Your task to perform on an android device: turn off priority inbox in the gmail app Image 0: 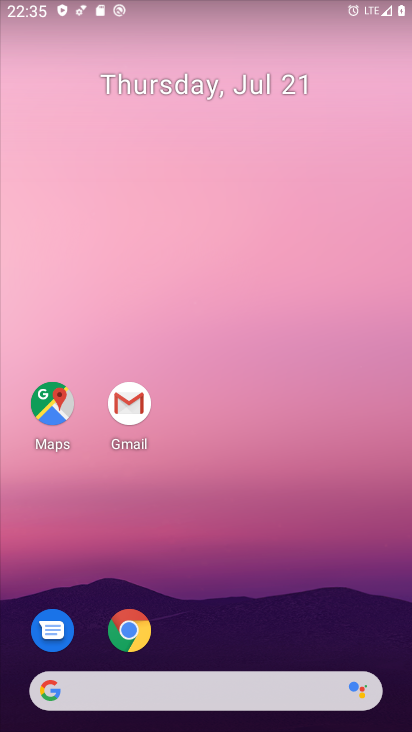
Step 0: drag from (112, 656) to (113, 318)
Your task to perform on an android device: turn off priority inbox in the gmail app Image 1: 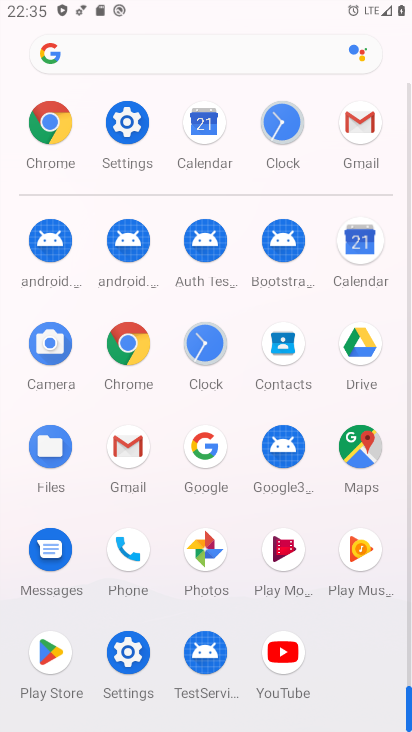
Step 1: click (121, 456)
Your task to perform on an android device: turn off priority inbox in the gmail app Image 2: 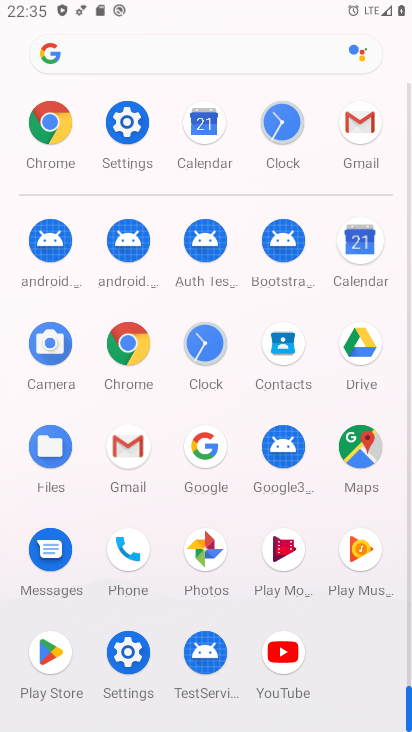
Step 2: click (121, 450)
Your task to perform on an android device: turn off priority inbox in the gmail app Image 3: 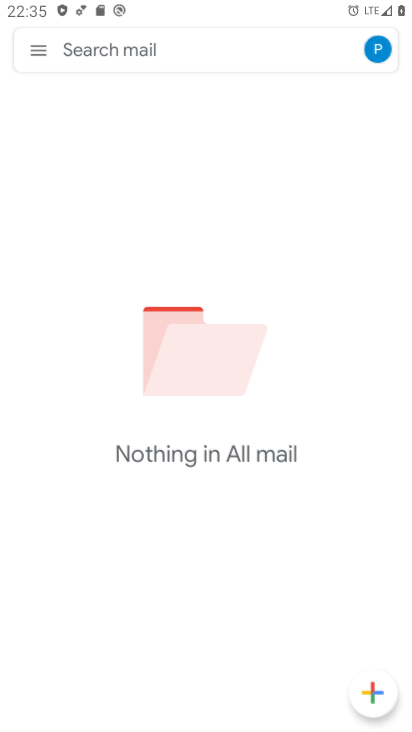
Step 3: click (125, 448)
Your task to perform on an android device: turn off priority inbox in the gmail app Image 4: 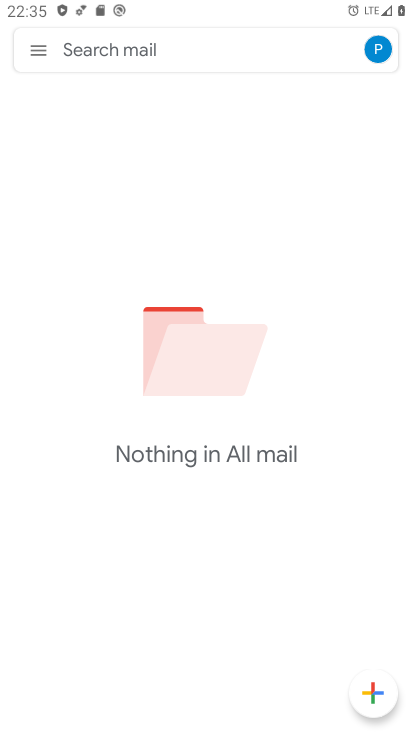
Step 4: click (33, 55)
Your task to perform on an android device: turn off priority inbox in the gmail app Image 5: 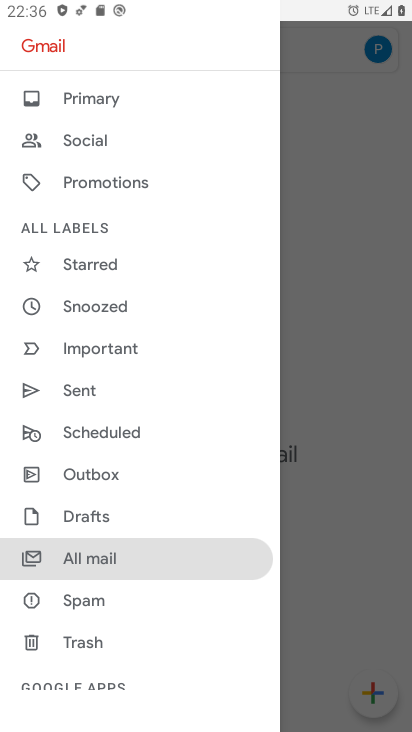
Step 5: press back button
Your task to perform on an android device: turn off priority inbox in the gmail app Image 6: 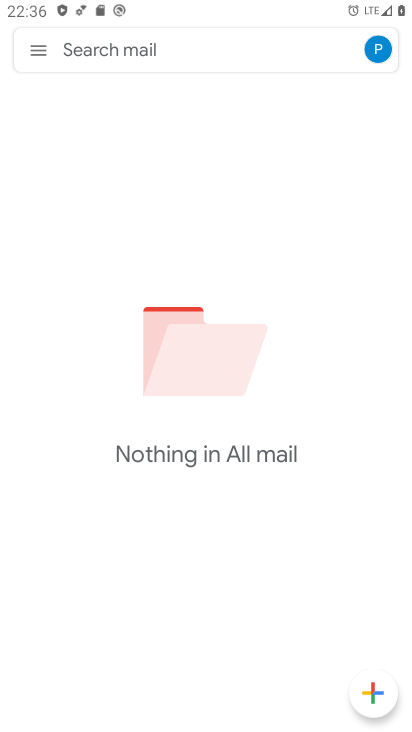
Step 6: press back button
Your task to perform on an android device: turn off priority inbox in the gmail app Image 7: 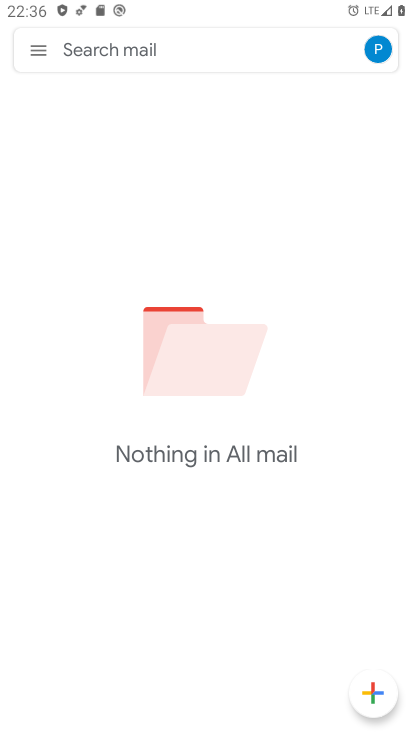
Step 7: press back button
Your task to perform on an android device: turn off priority inbox in the gmail app Image 8: 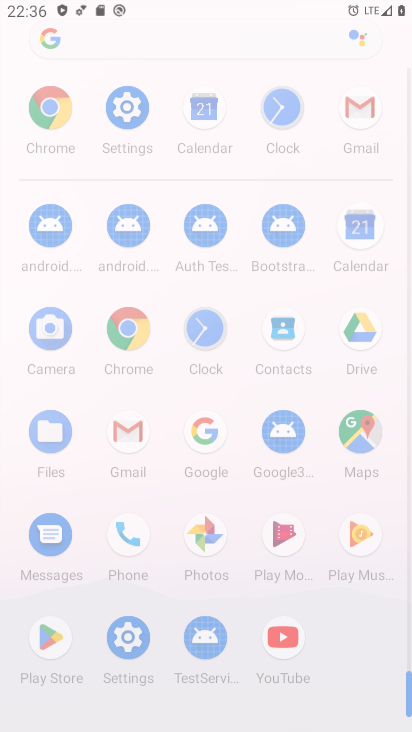
Step 8: drag from (211, 572) to (163, 193)
Your task to perform on an android device: turn off priority inbox in the gmail app Image 9: 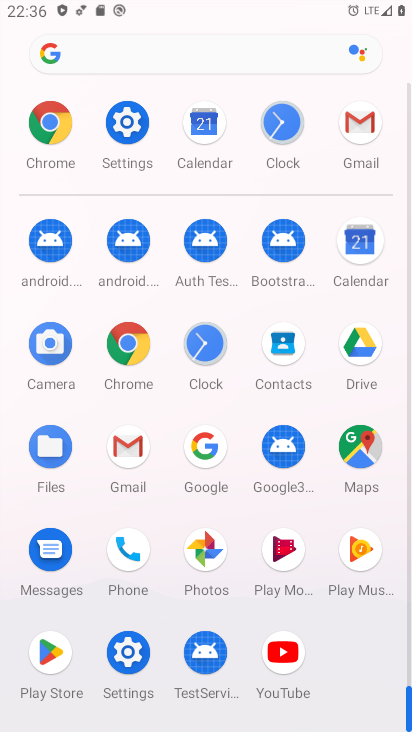
Step 9: click (126, 447)
Your task to perform on an android device: turn off priority inbox in the gmail app Image 10: 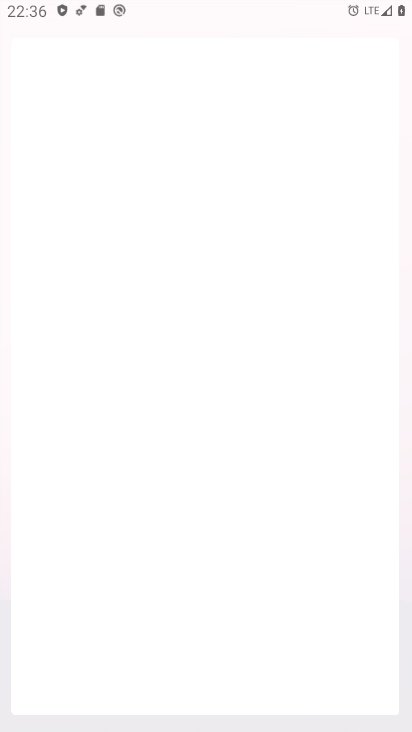
Step 10: click (131, 443)
Your task to perform on an android device: turn off priority inbox in the gmail app Image 11: 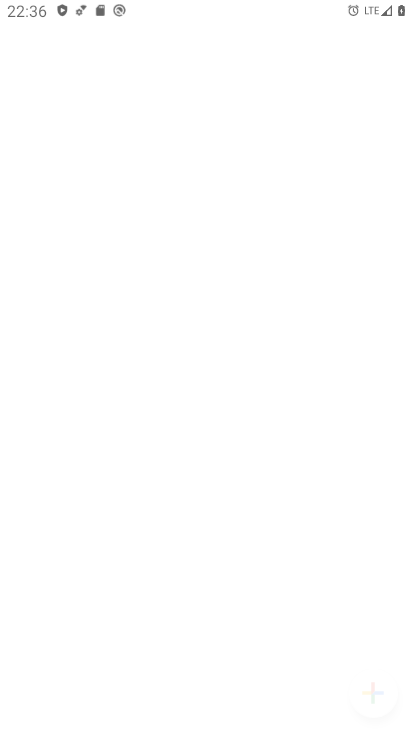
Step 11: click (117, 429)
Your task to perform on an android device: turn off priority inbox in the gmail app Image 12: 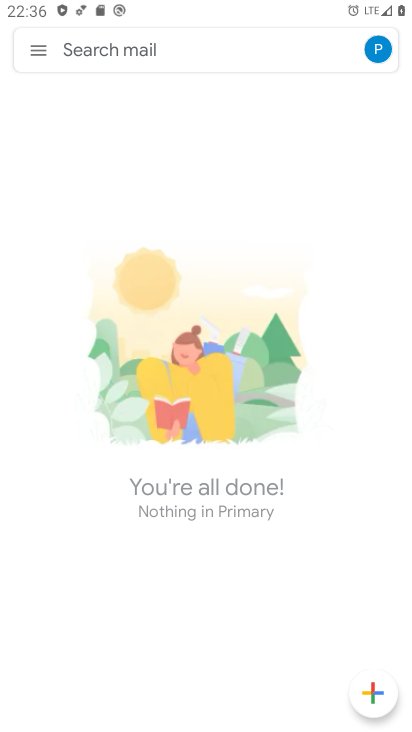
Step 12: click (127, 441)
Your task to perform on an android device: turn off priority inbox in the gmail app Image 13: 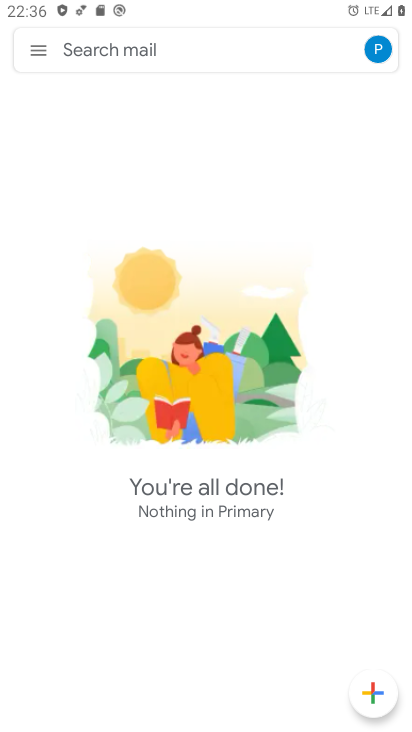
Step 13: click (131, 445)
Your task to perform on an android device: turn off priority inbox in the gmail app Image 14: 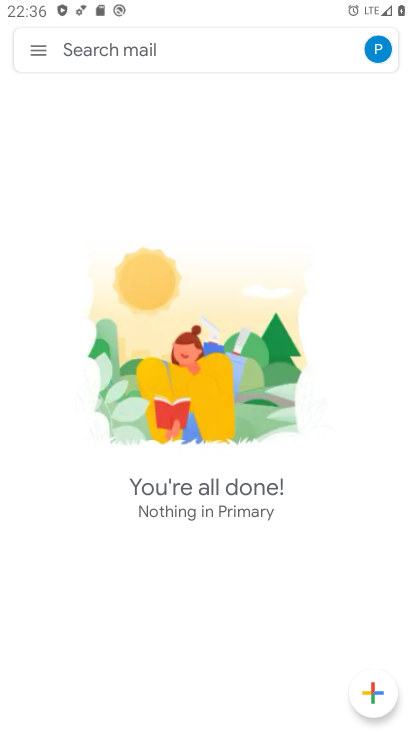
Step 14: click (132, 446)
Your task to perform on an android device: turn off priority inbox in the gmail app Image 15: 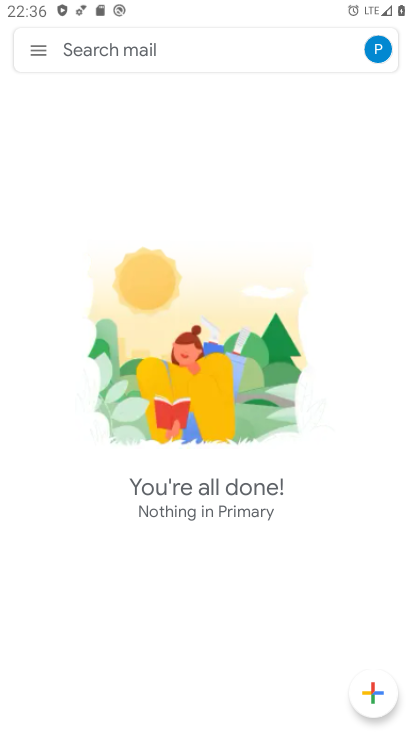
Step 15: click (124, 461)
Your task to perform on an android device: turn off priority inbox in the gmail app Image 16: 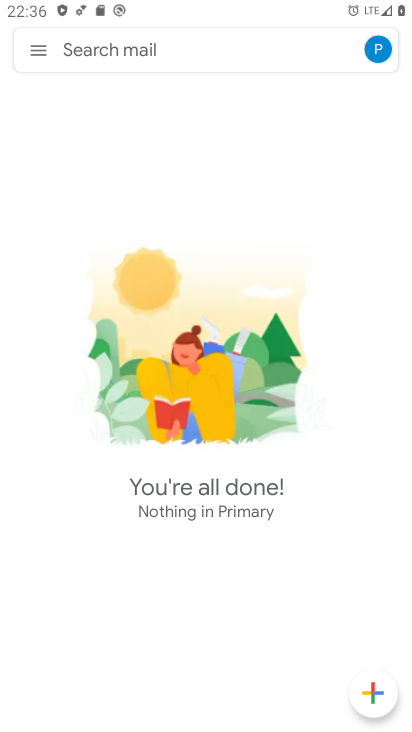
Step 16: click (124, 443)
Your task to perform on an android device: turn off priority inbox in the gmail app Image 17: 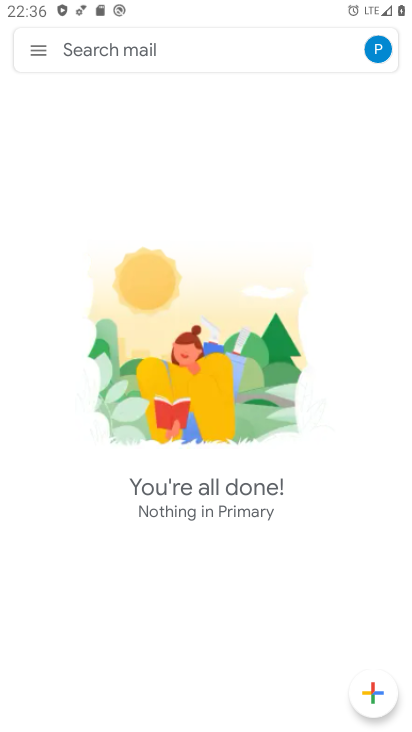
Step 17: click (130, 442)
Your task to perform on an android device: turn off priority inbox in the gmail app Image 18: 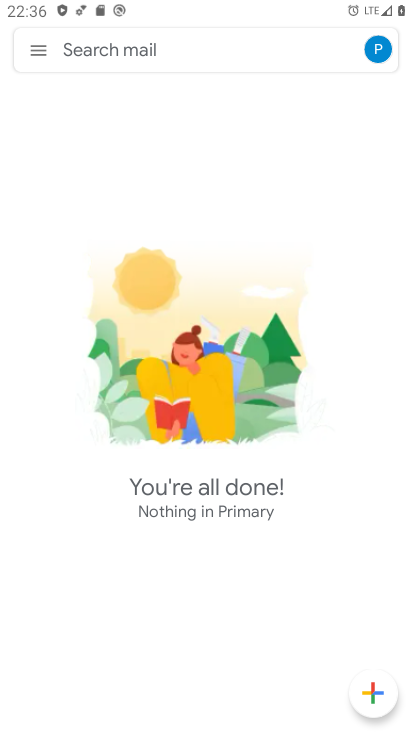
Step 18: click (125, 446)
Your task to perform on an android device: turn off priority inbox in the gmail app Image 19: 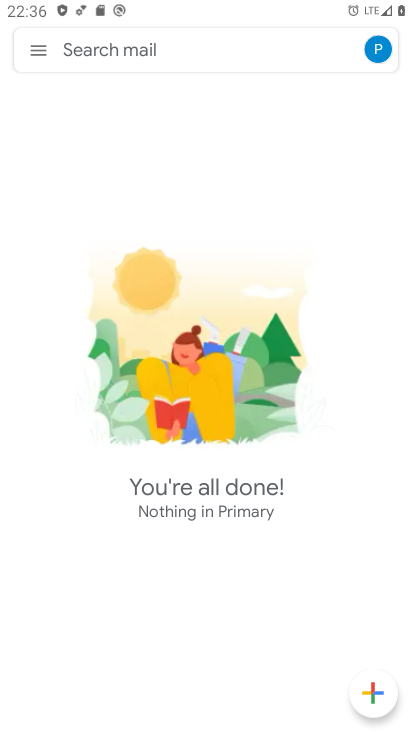
Step 19: click (143, 451)
Your task to perform on an android device: turn off priority inbox in the gmail app Image 20: 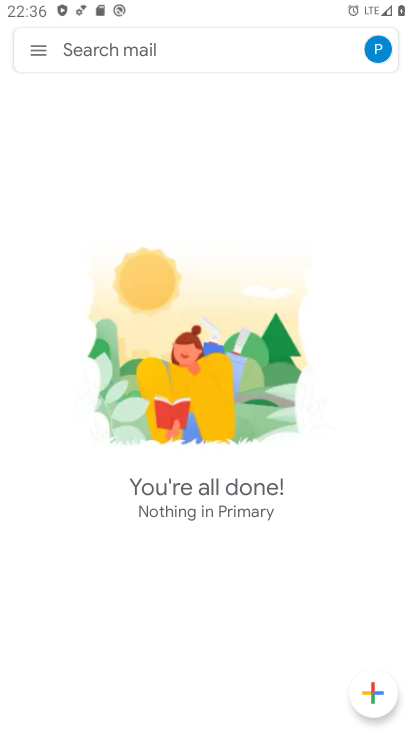
Step 20: click (145, 435)
Your task to perform on an android device: turn off priority inbox in the gmail app Image 21: 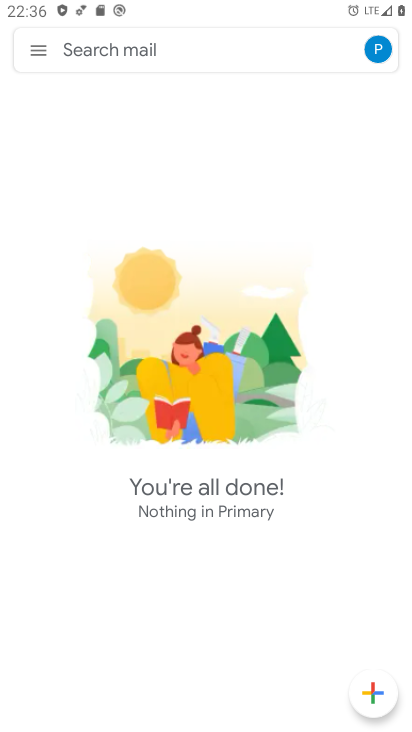
Step 21: click (150, 438)
Your task to perform on an android device: turn off priority inbox in the gmail app Image 22: 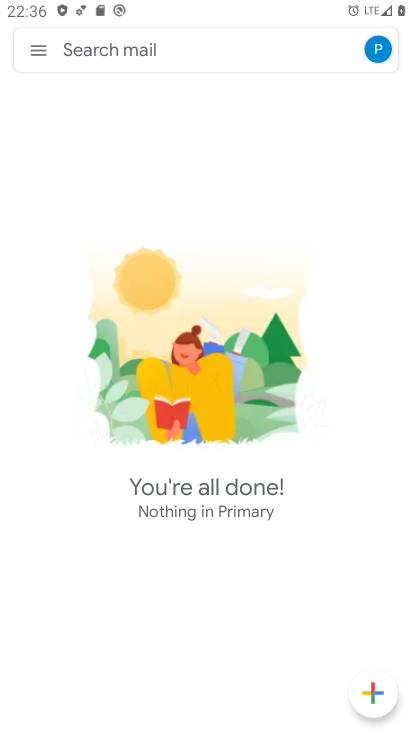
Step 22: click (150, 439)
Your task to perform on an android device: turn off priority inbox in the gmail app Image 23: 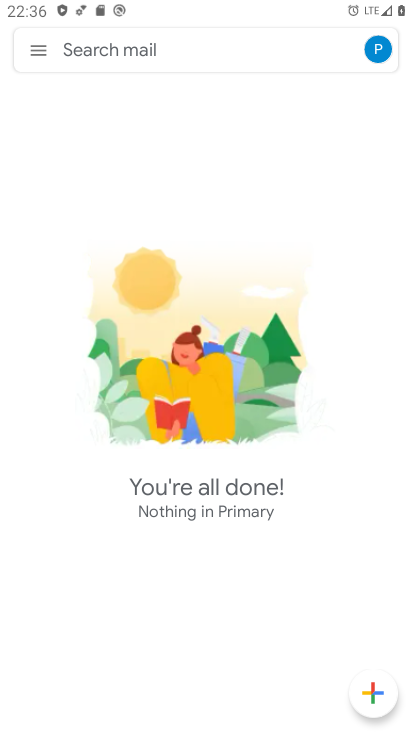
Step 23: drag from (39, 52) to (84, 351)
Your task to perform on an android device: turn off priority inbox in the gmail app Image 24: 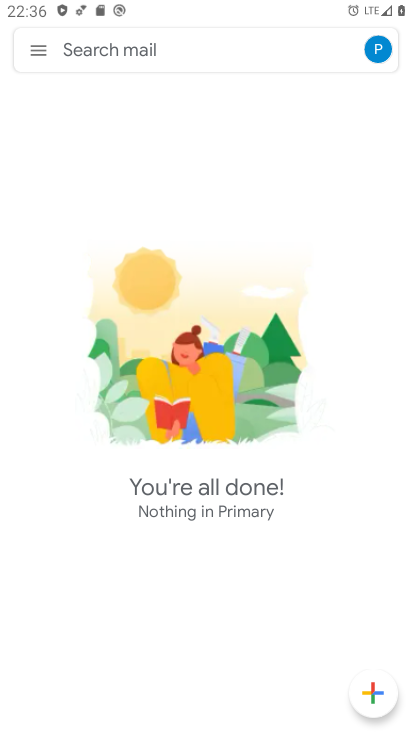
Step 24: click (42, 47)
Your task to perform on an android device: turn off priority inbox in the gmail app Image 25: 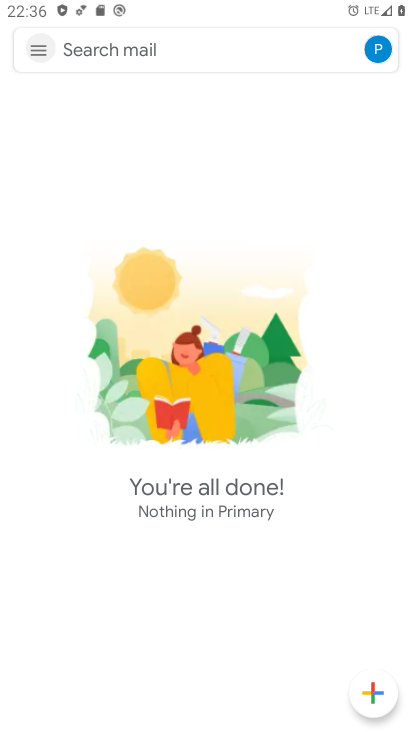
Step 25: click (42, 48)
Your task to perform on an android device: turn off priority inbox in the gmail app Image 26: 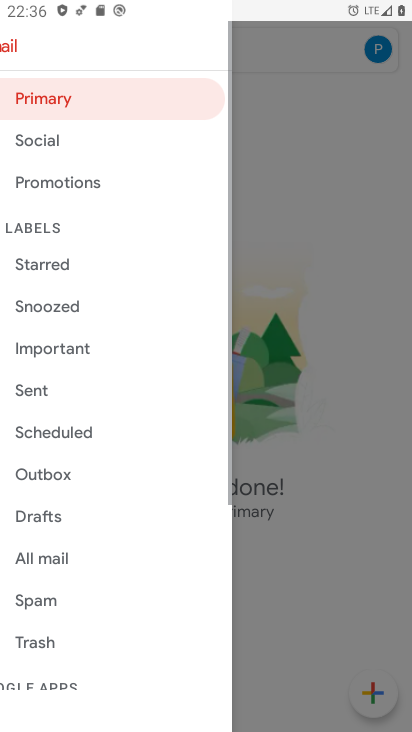
Step 26: click (42, 48)
Your task to perform on an android device: turn off priority inbox in the gmail app Image 27: 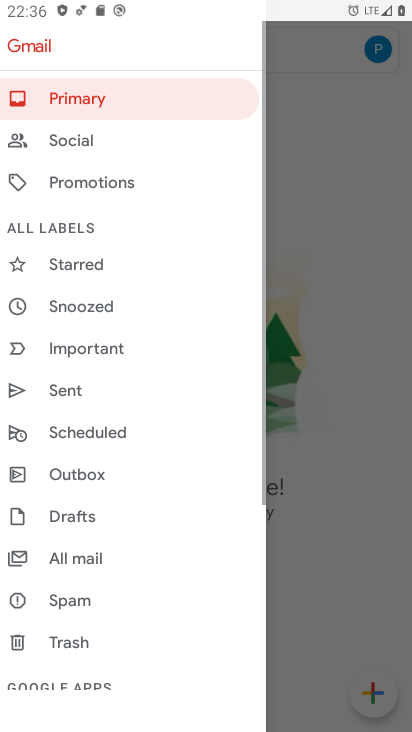
Step 27: click (40, 49)
Your task to perform on an android device: turn off priority inbox in the gmail app Image 28: 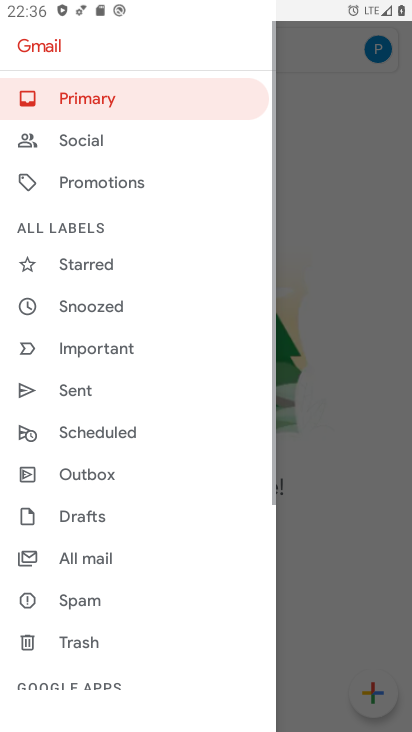
Step 28: click (38, 49)
Your task to perform on an android device: turn off priority inbox in the gmail app Image 29: 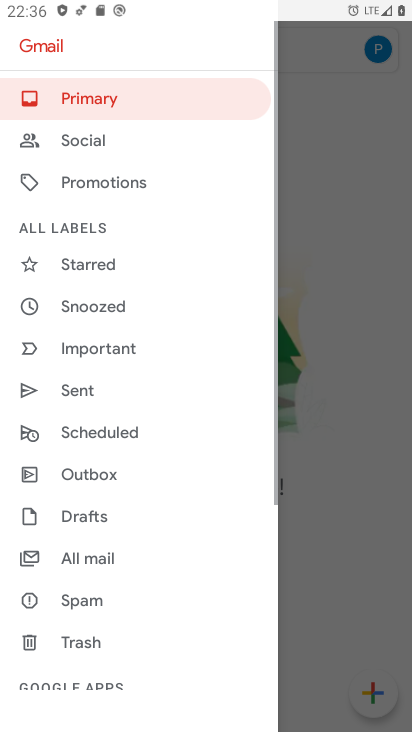
Step 29: click (37, 50)
Your task to perform on an android device: turn off priority inbox in the gmail app Image 30: 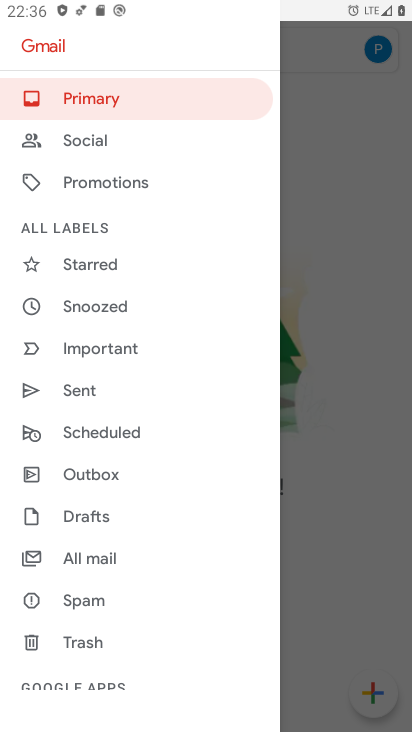
Step 30: drag from (129, 471) to (174, 96)
Your task to perform on an android device: turn off priority inbox in the gmail app Image 31: 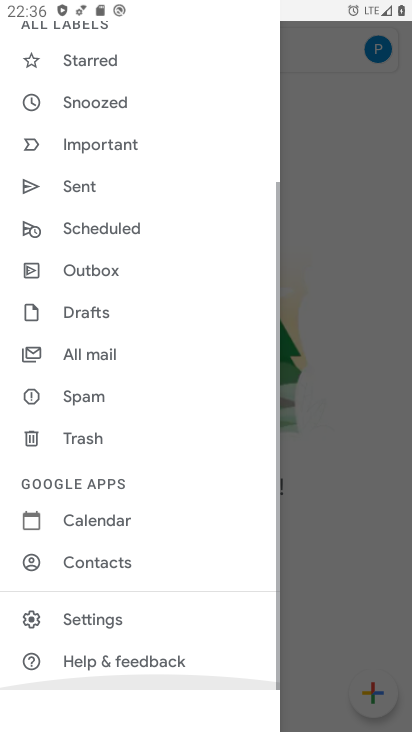
Step 31: drag from (180, 449) to (217, 170)
Your task to perform on an android device: turn off priority inbox in the gmail app Image 32: 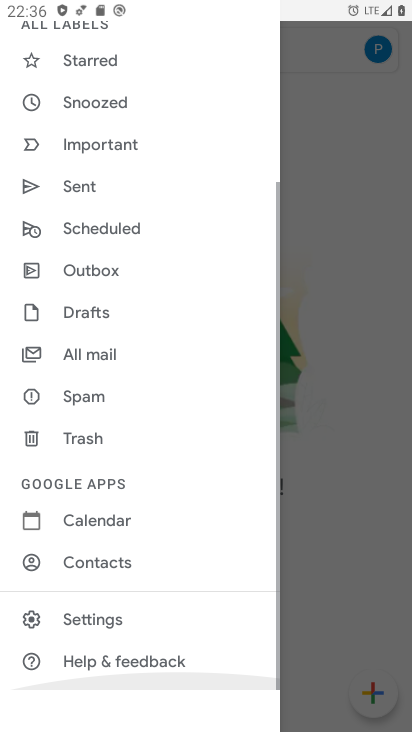
Step 32: drag from (147, 545) to (147, 281)
Your task to perform on an android device: turn off priority inbox in the gmail app Image 33: 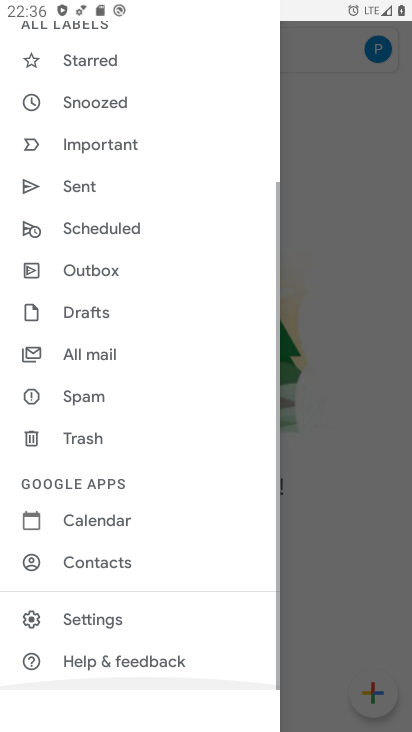
Step 33: drag from (157, 563) to (156, 298)
Your task to perform on an android device: turn off priority inbox in the gmail app Image 34: 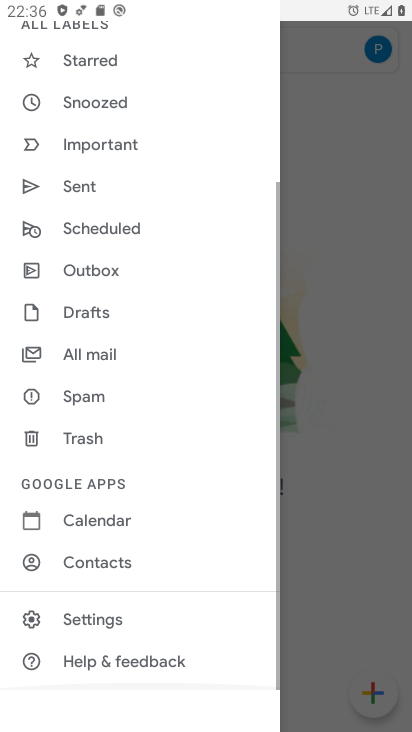
Step 34: click (90, 623)
Your task to perform on an android device: turn off priority inbox in the gmail app Image 35: 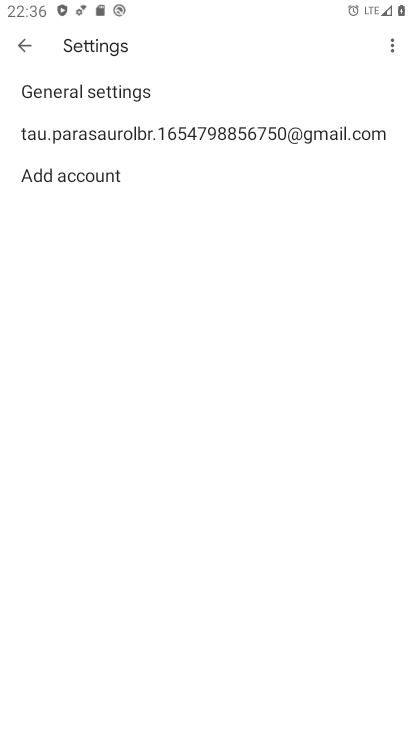
Step 35: click (89, 621)
Your task to perform on an android device: turn off priority inbox in the gmail app Image 36: 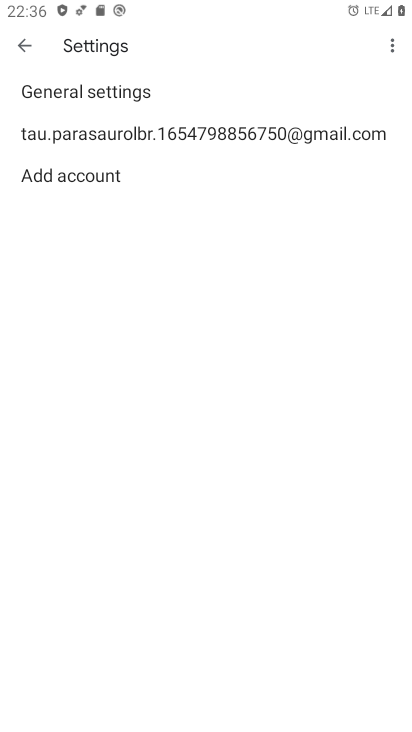
Step 36: click (88, 620)
Your task to perform on an android device: turn off priority inbox in the gmail app Image 37: 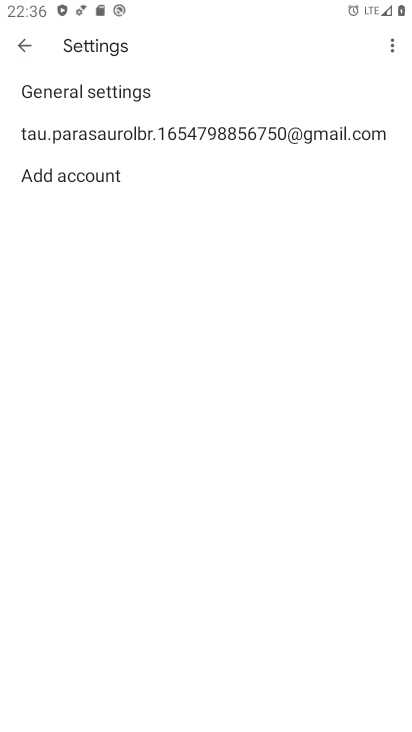
Step 37: click (144, 140)
Your task to perform on an android device: turn off priority inbox in the gmail app Image 38: 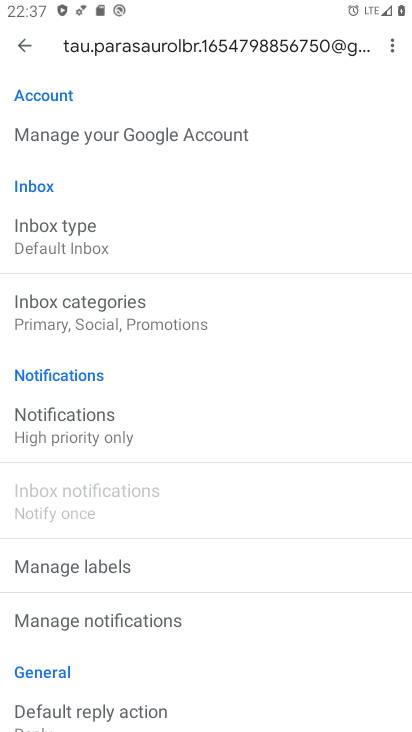
Step 38: click (66, 245)
Your task to perform on an android device: turn off priority inbox in the gmail app Image 39: 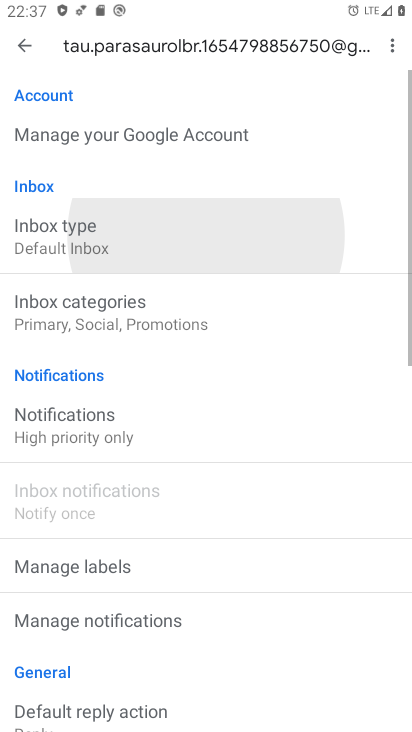
Step 39: click (66, 245)
Your task to perform on an android device: turn off priority inbox in the gmail app Image 40: 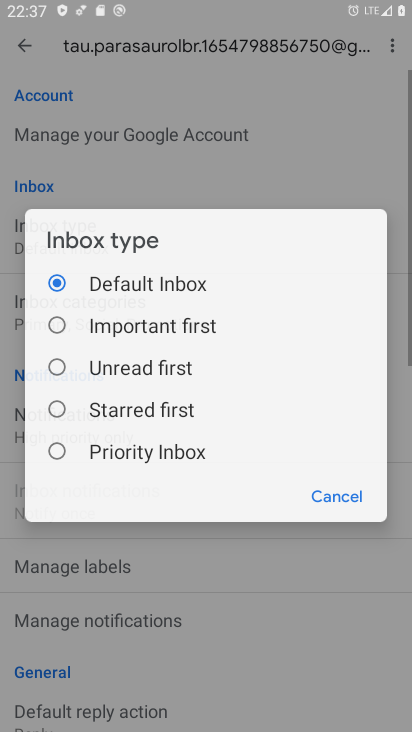
Step 40: click (65, 245)
Your task to perform on an android device: turn off priority inbox in the gmail app Image 41: 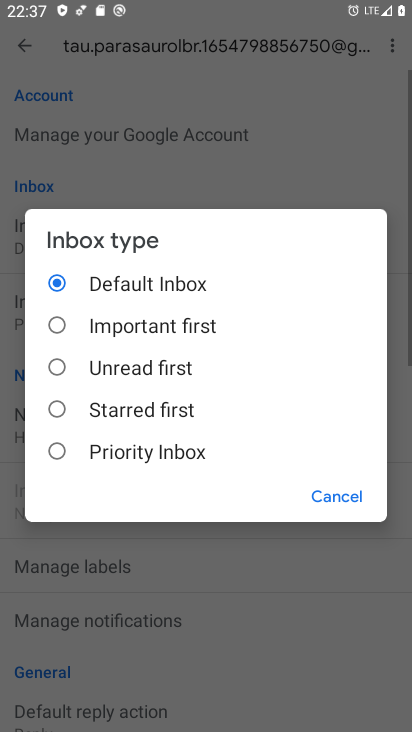
Step 41: click (56, 441)
Your task to perform on an android device: turn off priority inbox in the gmail app Image 42: 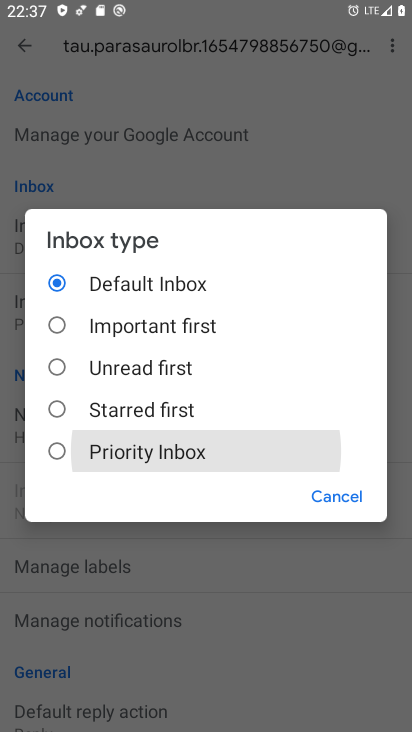
Step 42: click (56, 441)
Your task to perform on an android device: turn off priority inbox in the gmail app Image 43: 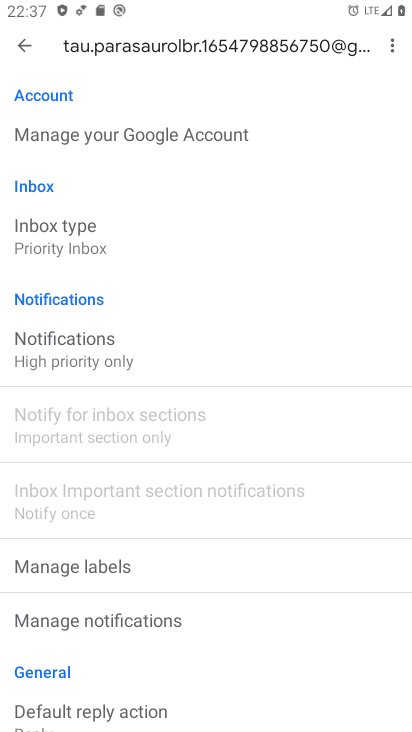
Step 43: task complete